Your task to perform on an android device: check storage Image 0: 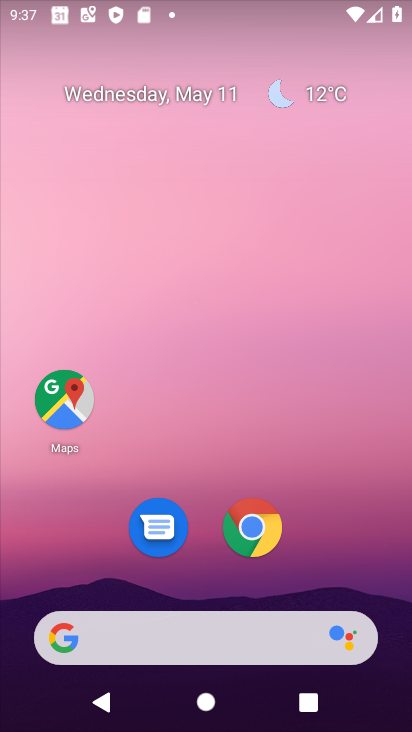
Step 0: drag from (353, 535) to (268, 6)
Your task to perform on an android device: check storage Image 1: 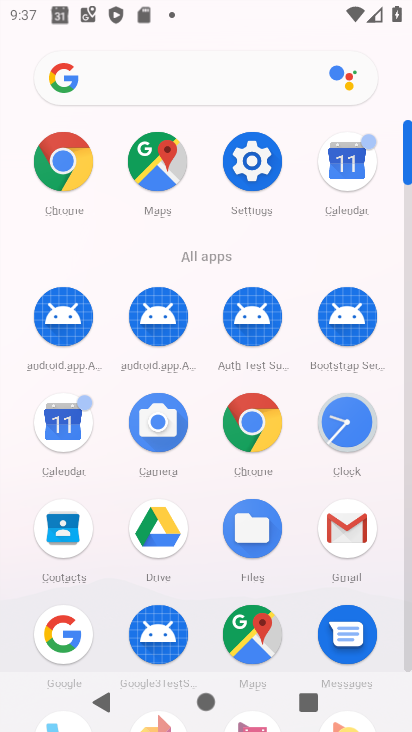
Step 1: click (255, 166)
Your task to perform on an android device: check storage Image 2: 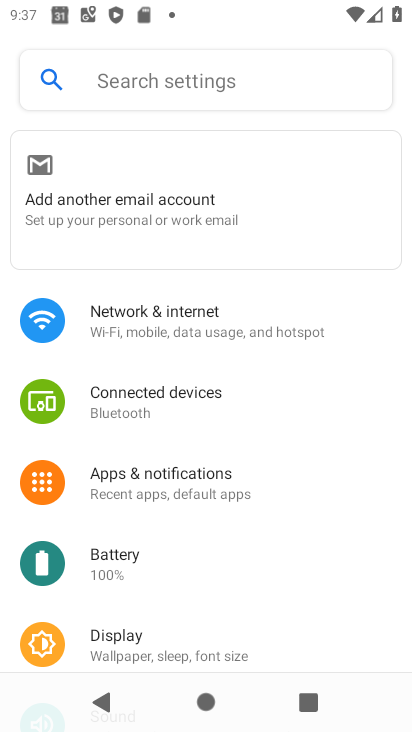
Step 2: drag from (231, 637) to (270, 205)
Your task to perform on an android device: check storage Image 3: 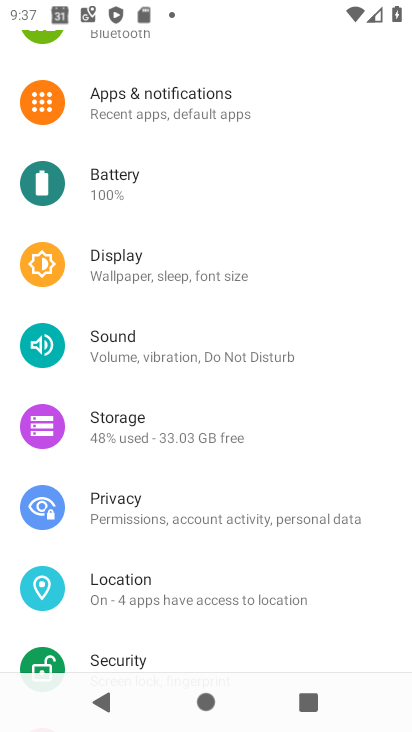
Step 3: drag from (256, 564) to (374, 116)
Your task to perform on an android device: check storage Image 4: 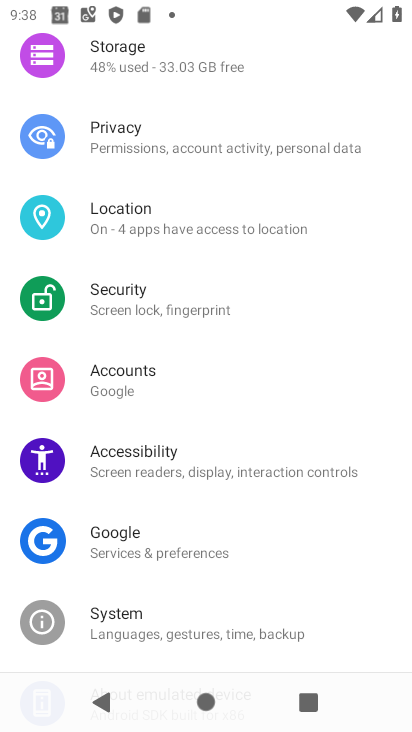
Step 4: drag from (158, 590) to (216, 195)
Your task to perform on an android device: check storage Image 5: 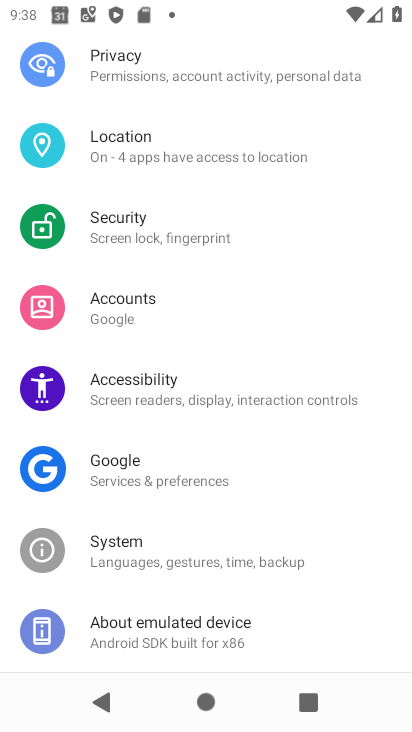
Step 5: drag from (213, 207) to (187, 590)
Your task to perform on an android device: check storage Image 6: 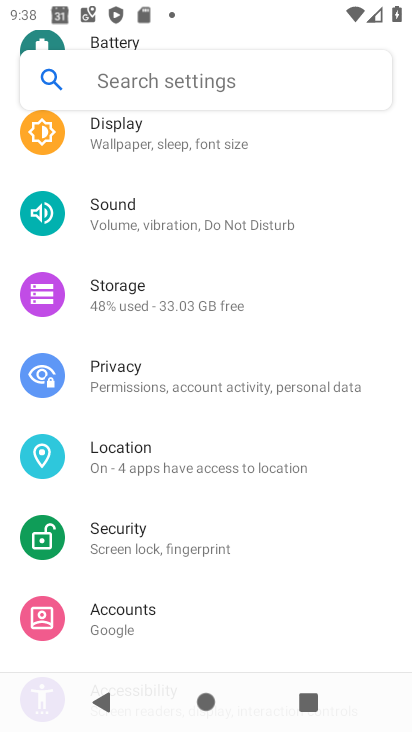
Step 6: click (154, 294)
Your task to perform on an android device: check storage Image 7: 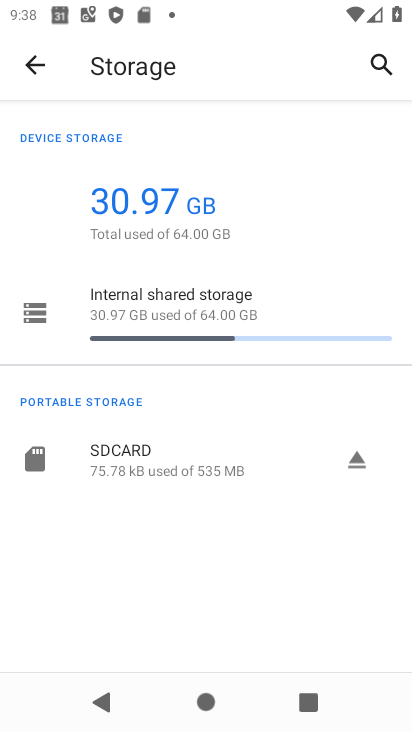
Step 7: click (165, 317)
Your task to perform on an android device: check storage Image 8: 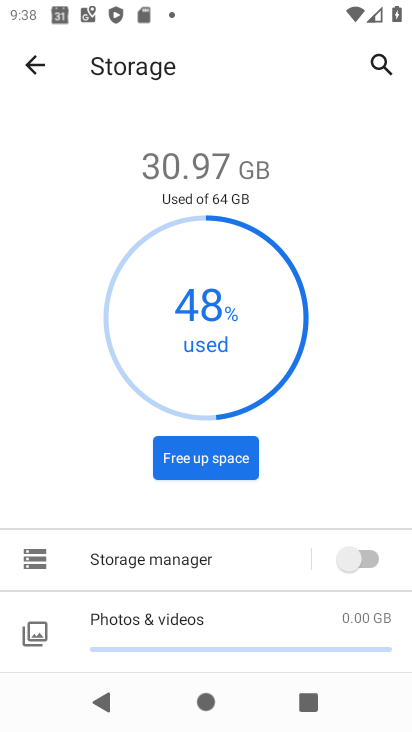
Step 8: task complete